Your task to perform on an android device: delete location history Image 0: 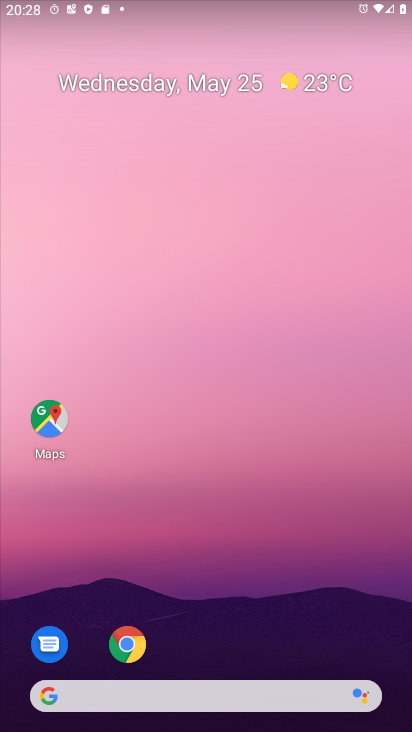
Step 0: drag from (257, 702) to (181, 135)
Your task to perform on an android device: delete location history Image 1: 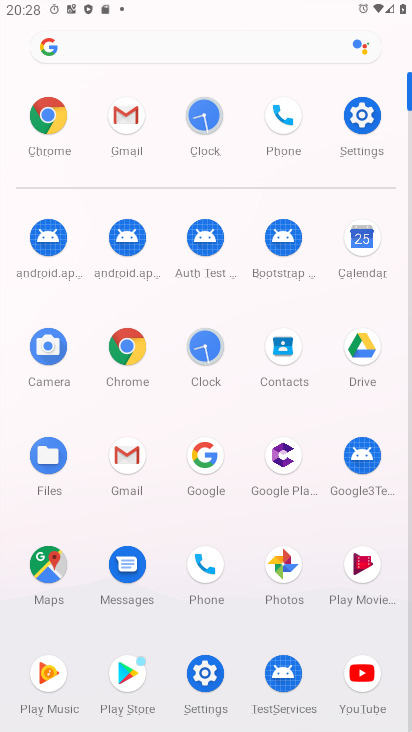
Step 1: click (365, 135)
Your task to perform on an android device: delete location history Image 2: 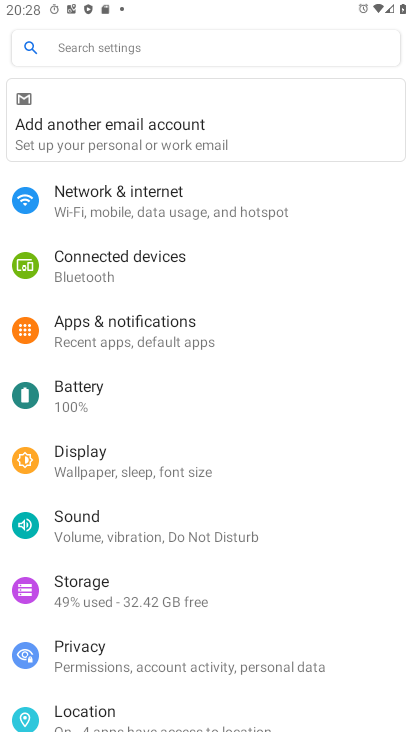
Step 2: click (130, 585)
Your task to perform on an android device: delete location history Image 3: 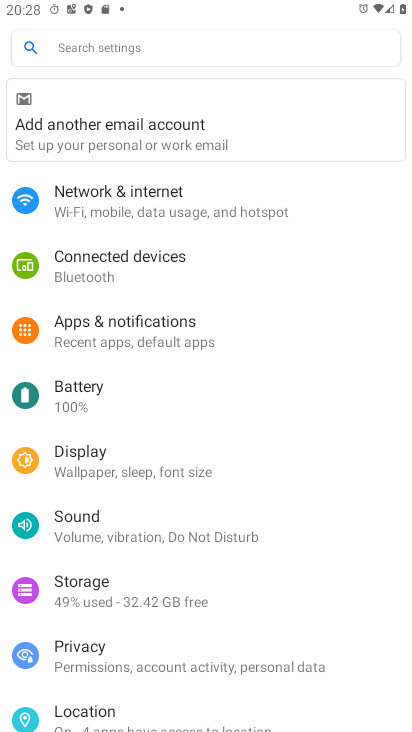
Step 3: click (133, 716)
Your task to perform on an android device: delete location history Image 4: 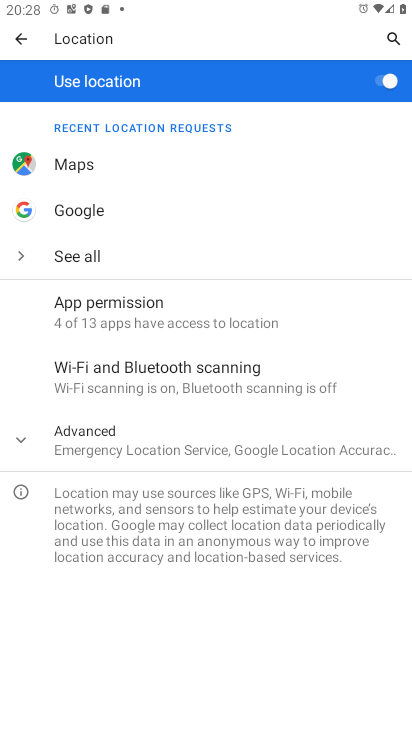
Step 4: click (34, 432)
Your task to perform on an android device: delete location history Image 5: 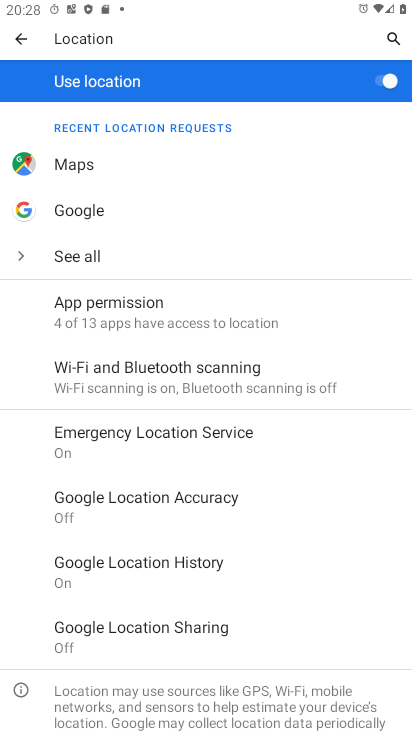
Step 5: click (164, 556)
Your task to perform on an android device: delete location history Image 6: 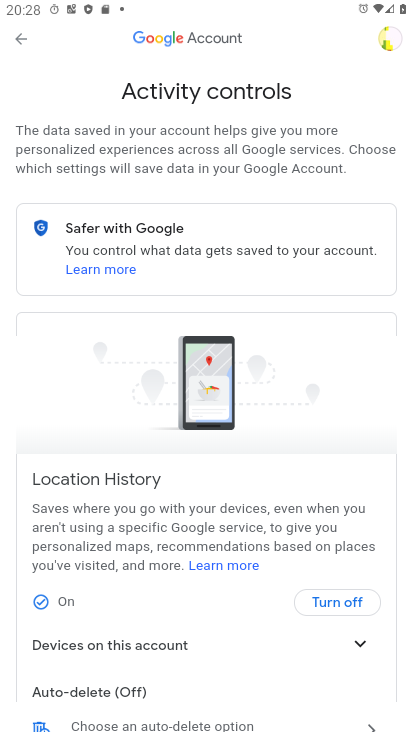
Step 6: drag from (163, 576) to (189, 478)
Your task to perform on an android device: delete location history Image 7: 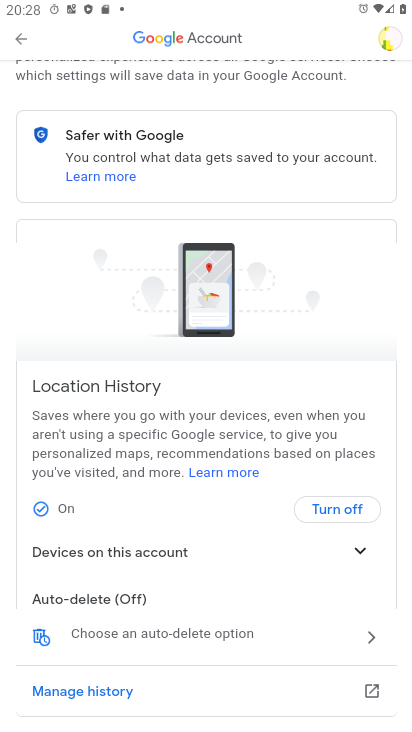
Step 7: click (229, 644)
Your task to perform on an android device: delete location history Image 8: 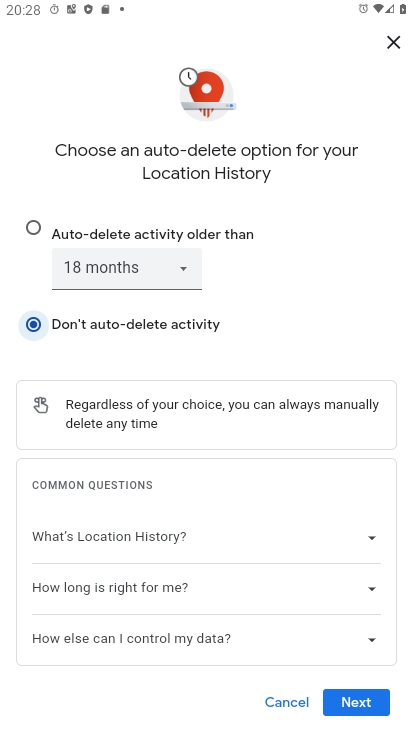
Step 8: task complete